Your task to perform on an android device: What's the weather going to be this weekend? Image 0: 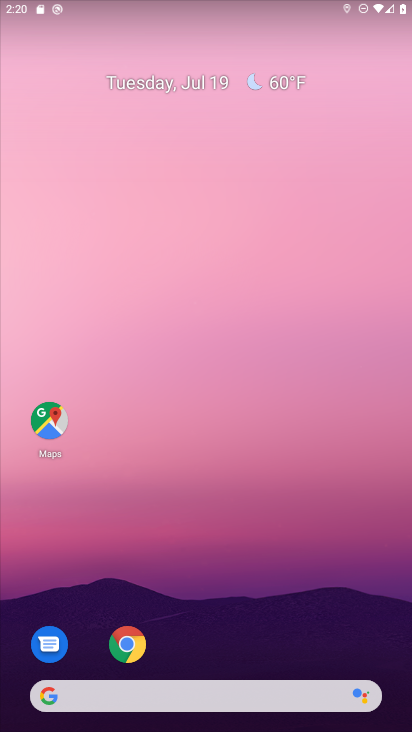
Step 0: drag from (203, 675) to (132, 84)
Your task to perform on an android device: What's the weather going to be this weekend? Image 1: 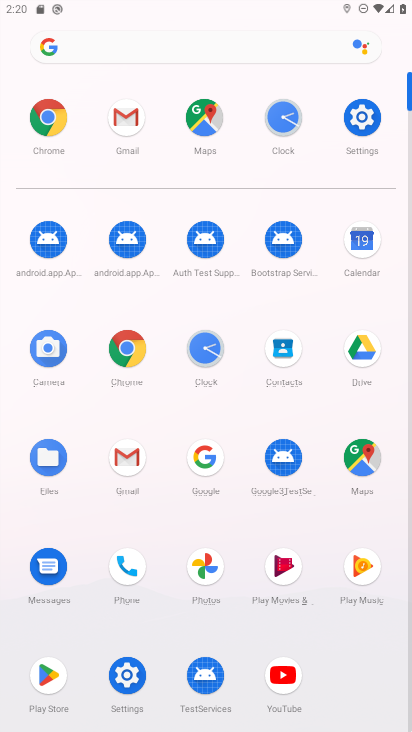
Step 1: click (200, 459)
Your task to perform on an android device: What's the weather going to be this weekend? Image 2: 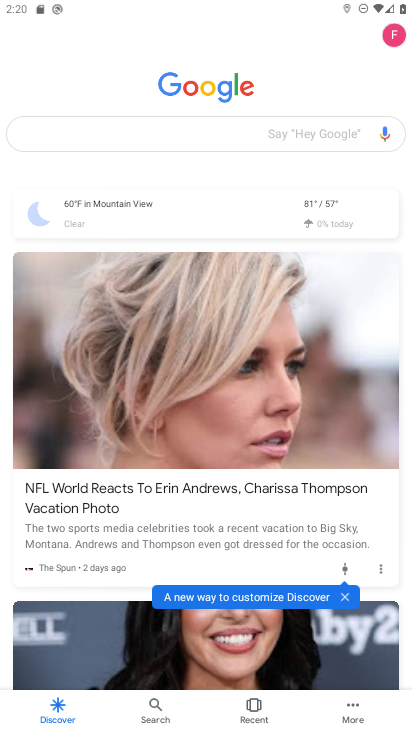
Step 2: click (178, 140)
Your task to perform on an android device: What's the weather going to be this weekend? Image 3: 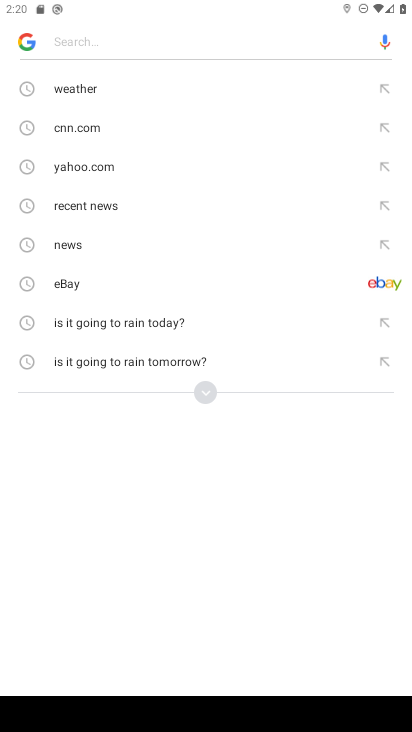
Step 3: click (66, 89)
Your task to perform on an android device: What's the weather going to be this weekend? Image 4: 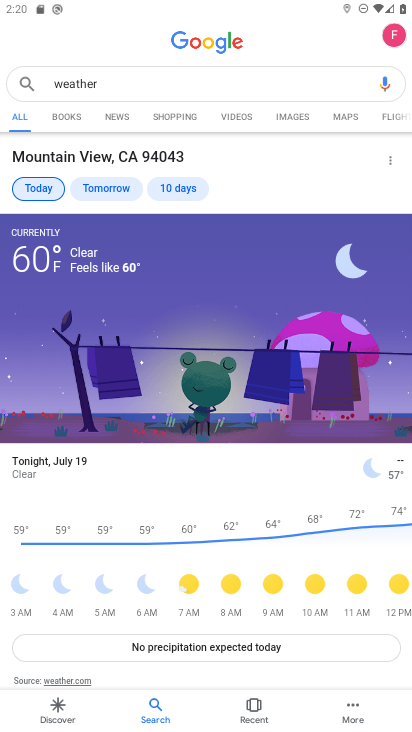
Step 4: click (178, 183)
Your task to perform on an android device: What's the weather going to be this weekend? Image 5: 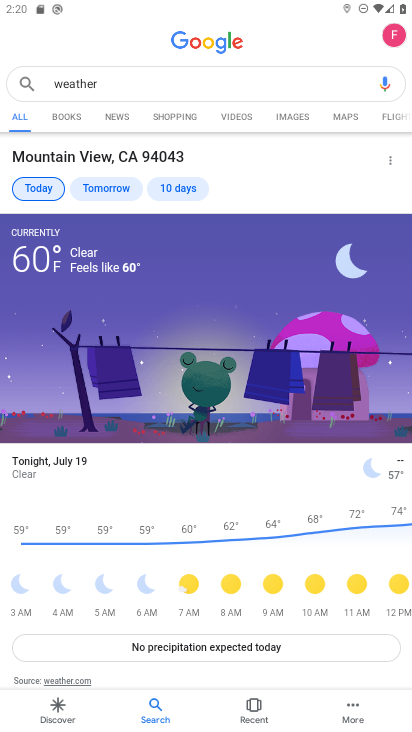
Step 5: click (201, 197)
Your task to perform on an android device: What's the weather going to be this weekend? Image 6: 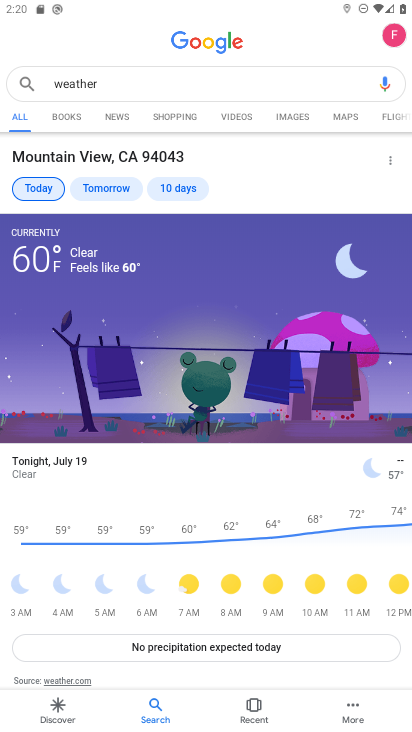
Step 6: click (202, 196)
Your task to perform on an android device: What's the weather going to be this weekend? Image 7: 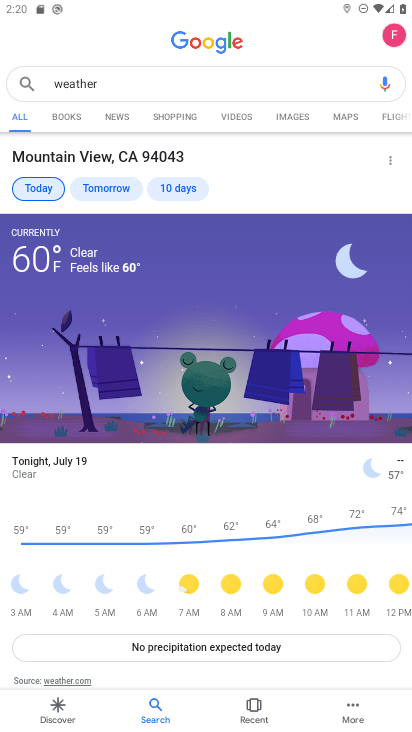
Step 7: click (201, 196)
Your task to perform on an android device: What's the weather going to be this weekend? Image 8: 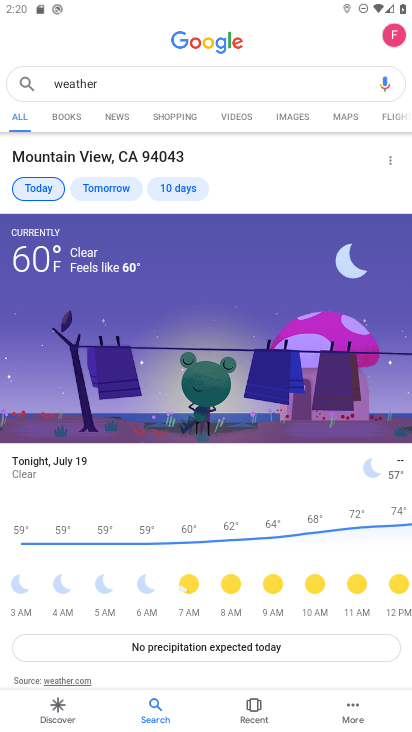
Step 8: task complete